Your task to perform on an android device: Open settings on Google Maps Image 0: 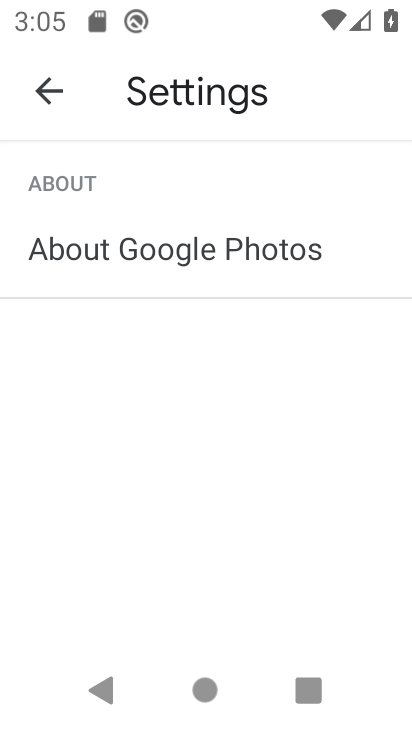
Step 0: press home button
Your task to perform on an android device: Open settings on Google Maps Image 1: 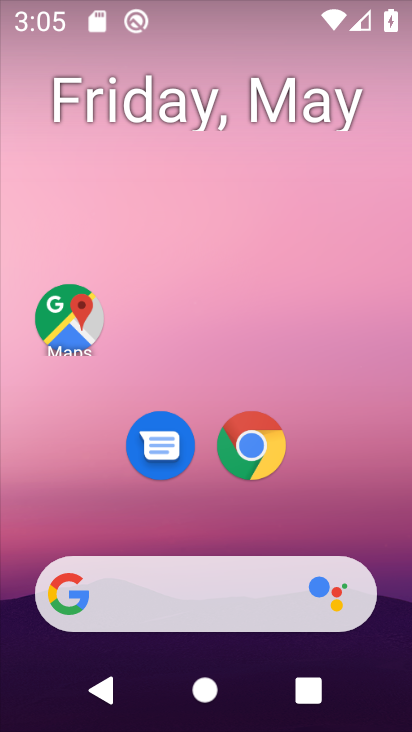
Step 1: drag from (212, 527) to (221, 273)
Your task to perform on an android device: Open settings on Google Maps Image 2: 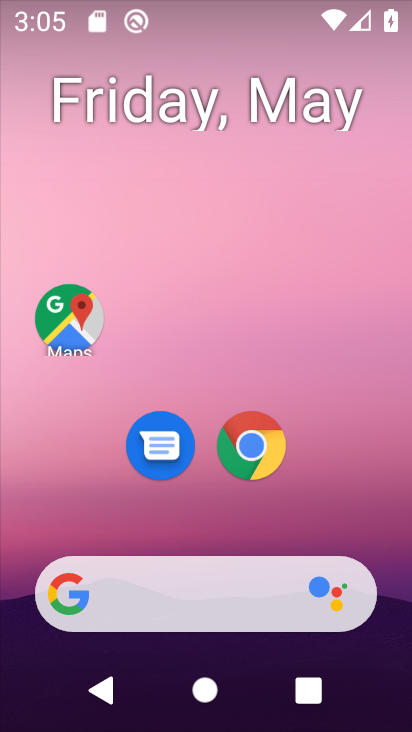
Step 2: drag from (195, 529) to (230, 174)
Your task to perform on an android device: Open settings on Google Maps Image 3: 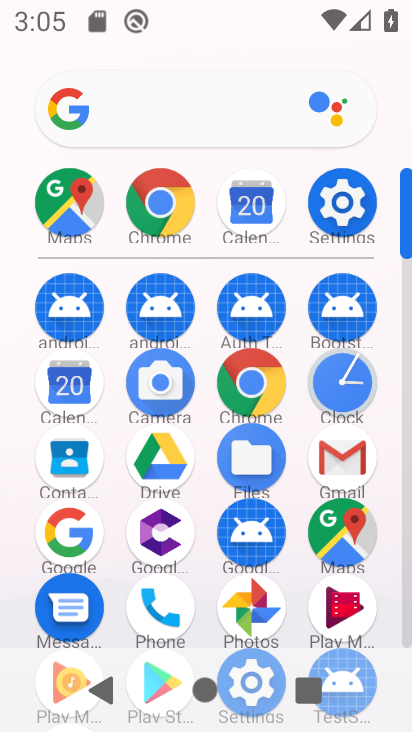
Step 3: click (339, 233)
Your task to perform on an android device: Open settings on Google Maps Image 4: 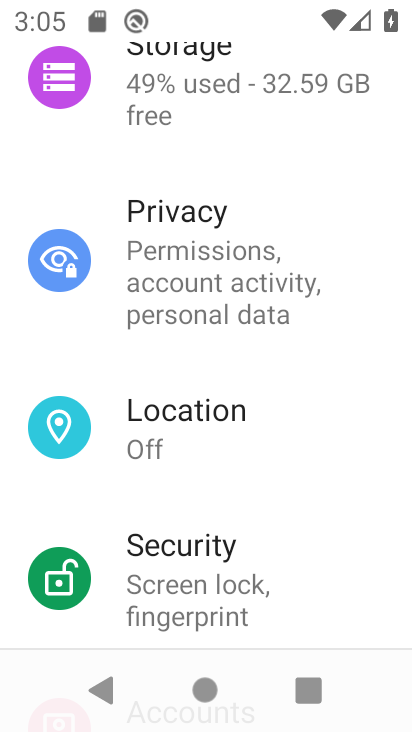
Step 4: drag from (231, 485) to (280, 175)
Your task to perform on an android device: Open settings on Google Maps Image 5: 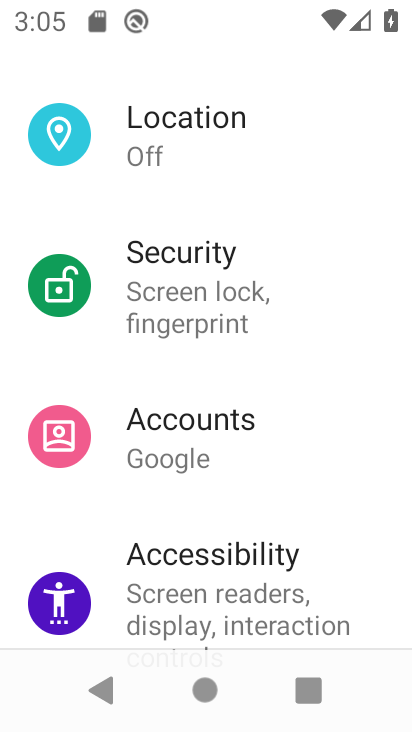
Step 5: drag from (289, 114) to (391, 628)
Your task to perform on an android device: Open settings on Google Maps Image 6: 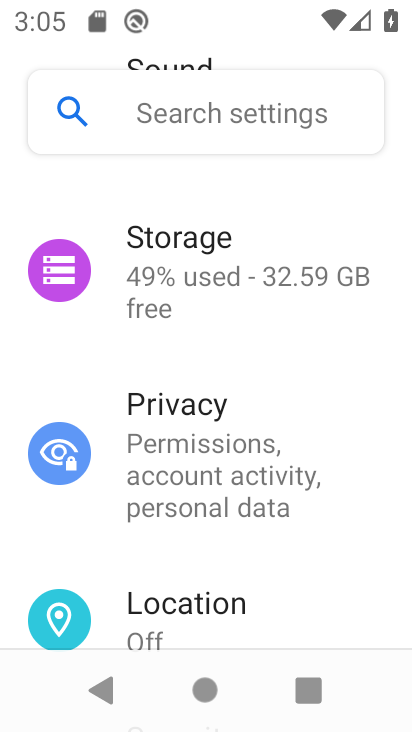
Step 6: press back button
Your task to perform on an android device: Open settings on Google Maps Image 7: 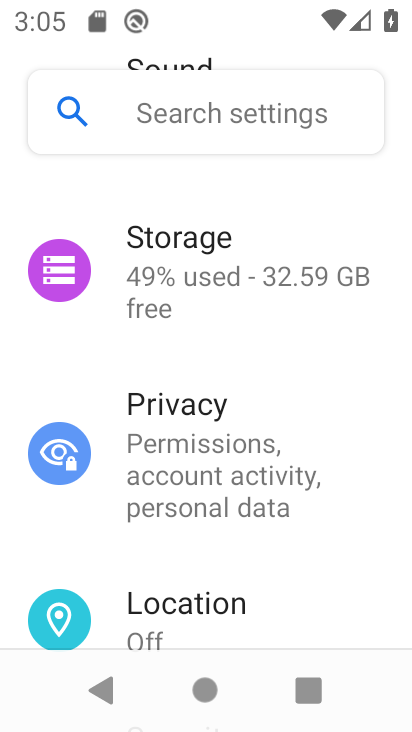
Step 7: drag from (391, 628) to (408, 373)
Your task to perform on an android device: Open settings on Google Maps Image 8: 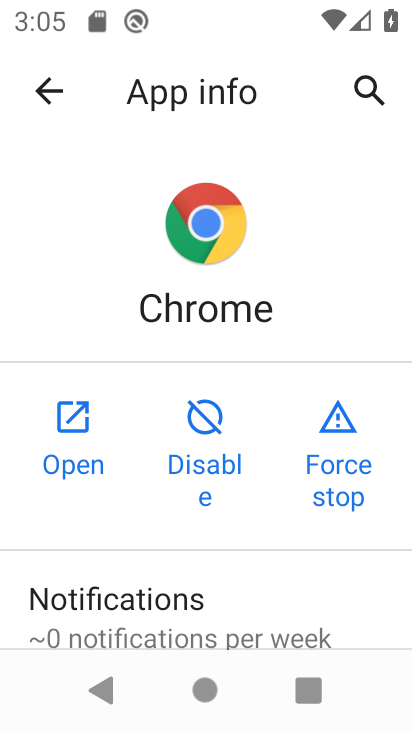
Step 8: press home button
Your task to perform on an android device: Open settings on Google Maps Image 9: 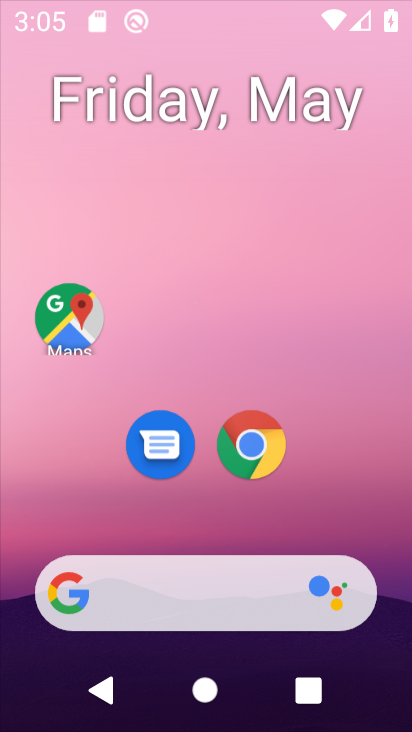
Step 9: drag from (170, 571) to (227, 142)
Your task to perform on an android device: Open settings on Google Maps Image 10: 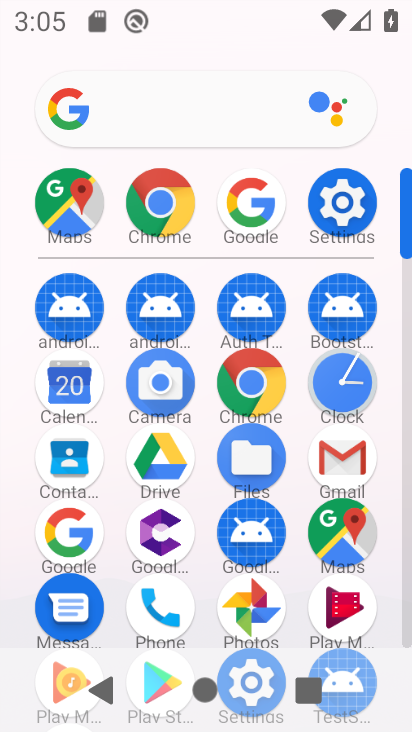
Step 10: click (343, 544)
Your task to perform on an android device: Open settings on Google Maps Image 11: 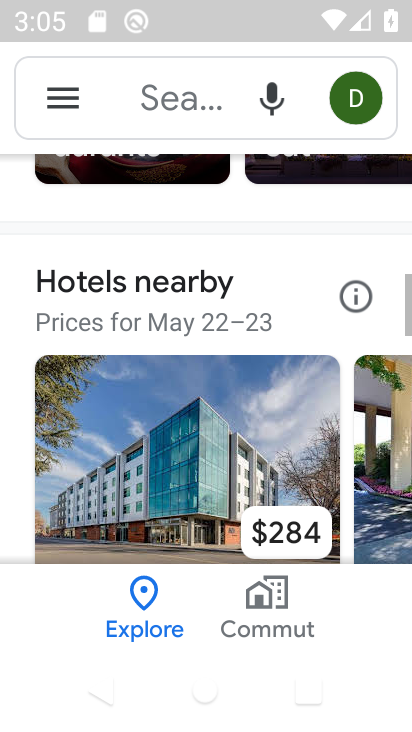
Step 11: click (54, 107)
Your task to perform on an android device: Open settings on Google Maps Image 12: 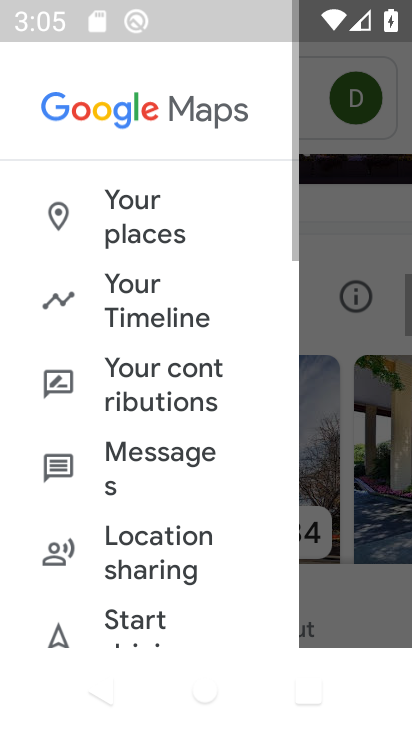
Step 12: drag from (110, 438) to (227, 58)
Your task to perform on an android device: Open settings on Google Maps Image 13: 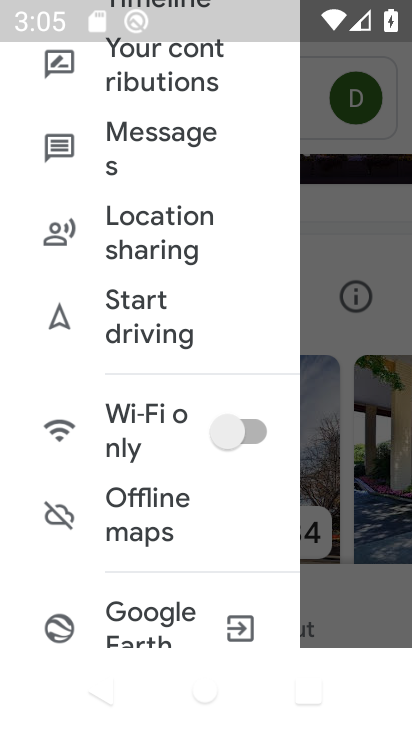
Step 13: drag from (137, 544) to (248, 117)
Your task to perform on an android device: Open settings on Google Maps Image 14: 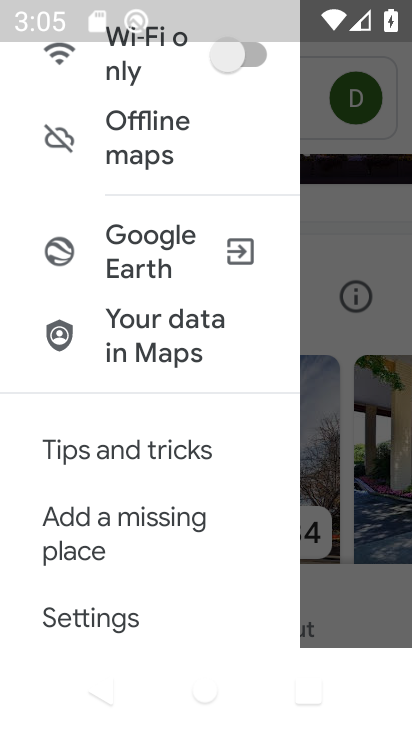
Step 14: click (88, 612)
Your task to perform on an android device: Open settings on Google Maps Image 15: 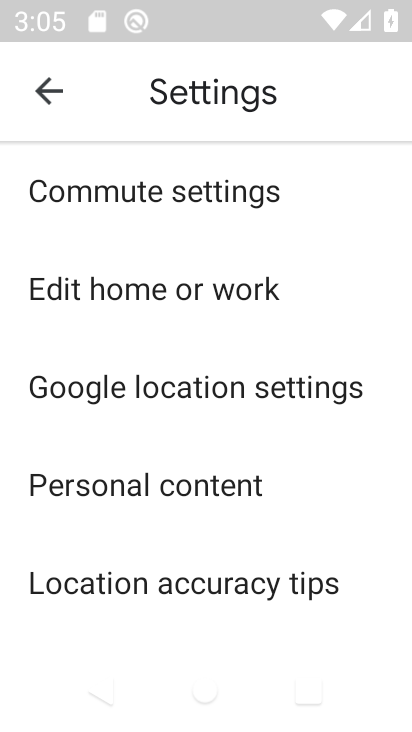
Step 15: task complete